Your task to perform on an android device: Go to sound settings Image 0: 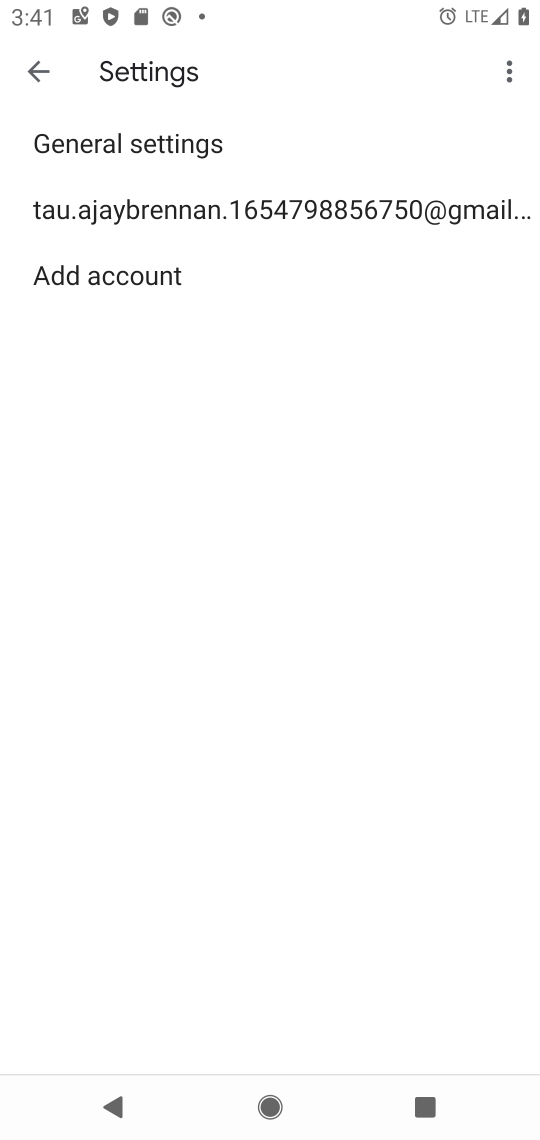
Step 0: press back button
Your task to perform on an android device: Go to sound settings Image 1: 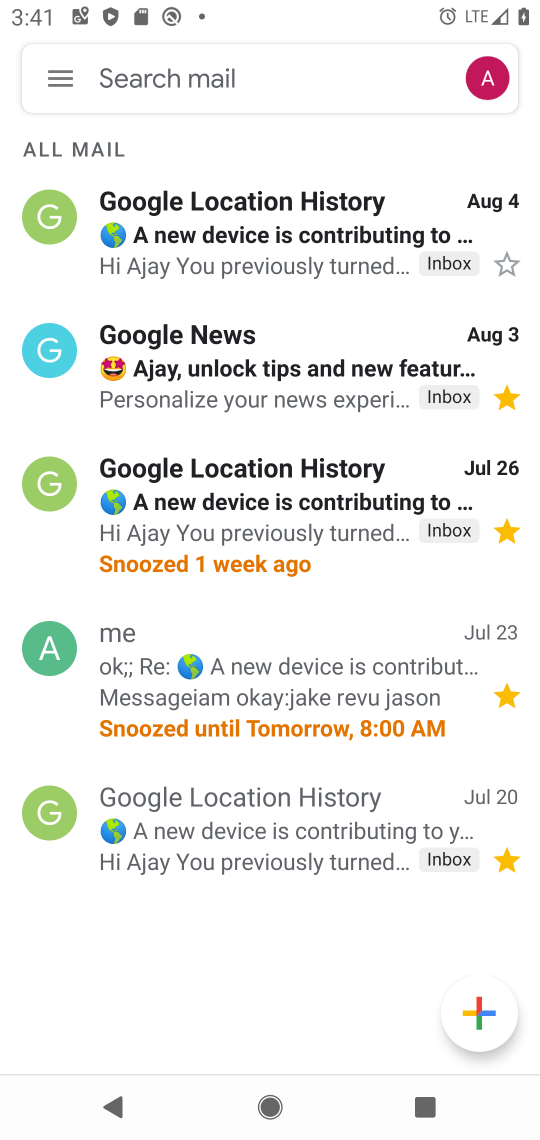
Step 1: press back button
Your task to perform on an android device: Go to sound settings Image 2: 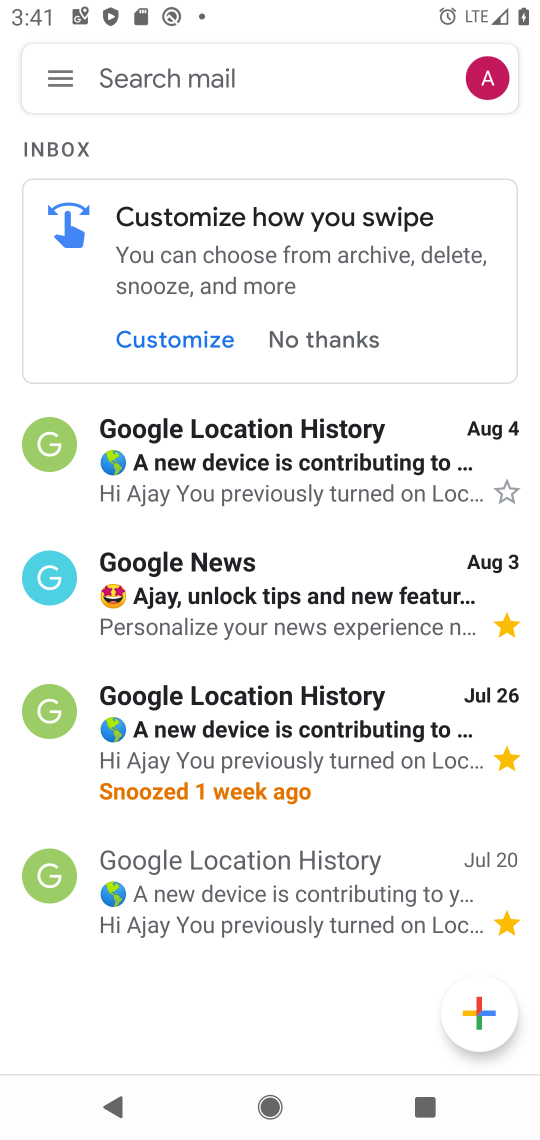
Step 2: press home button
Your task to perform on an android device: Go to sound settings Image 3: 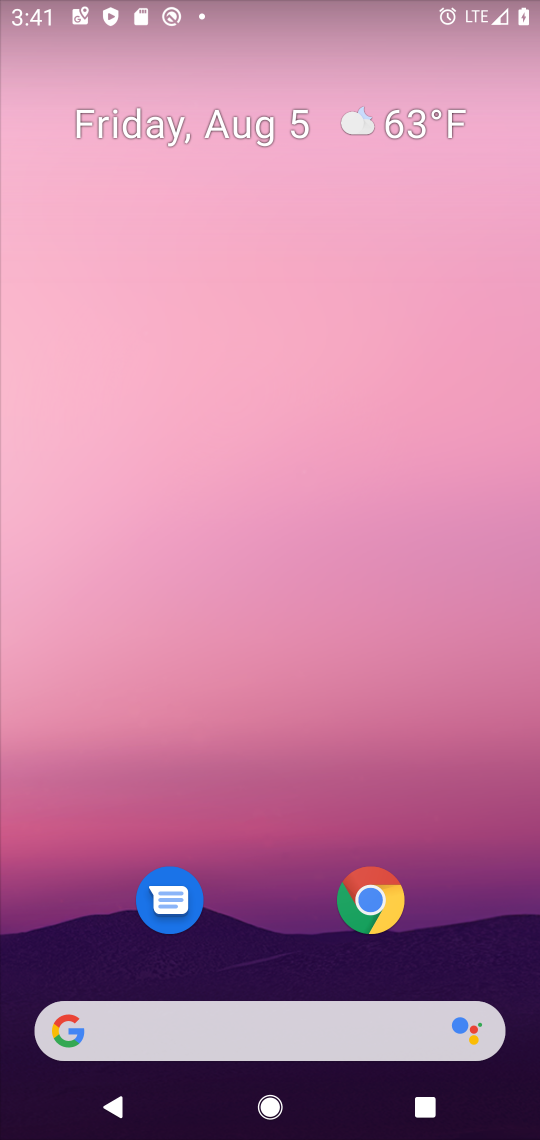
Step 3: drag from (227, 931) to (346, 27)
Your task to perform on an android device: Go to sound settings Image 4: 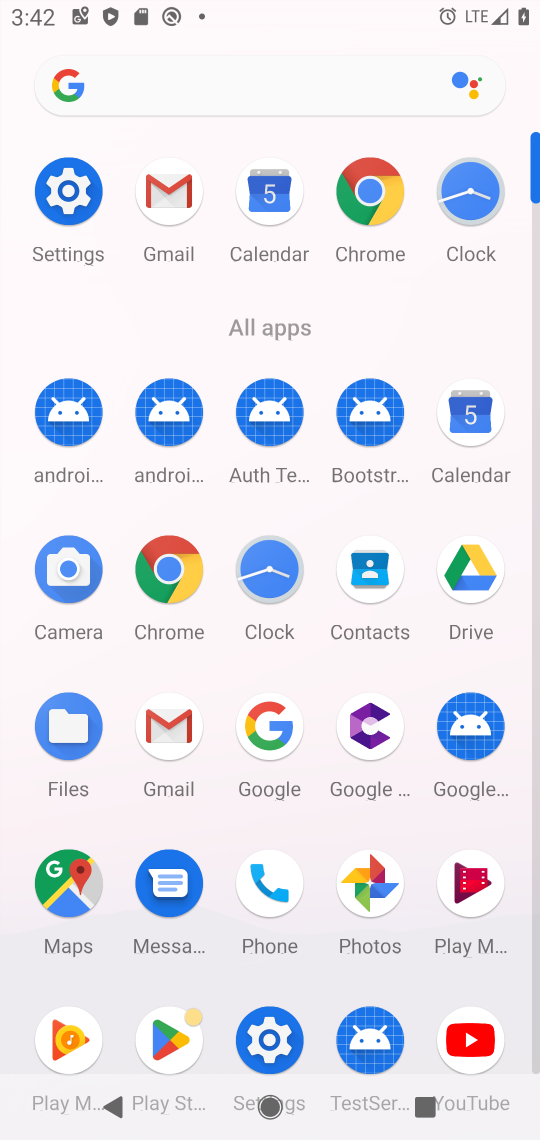
Step 4: click (80, 198)
Your task to perform on an android device: Go to sound settings Image 5: 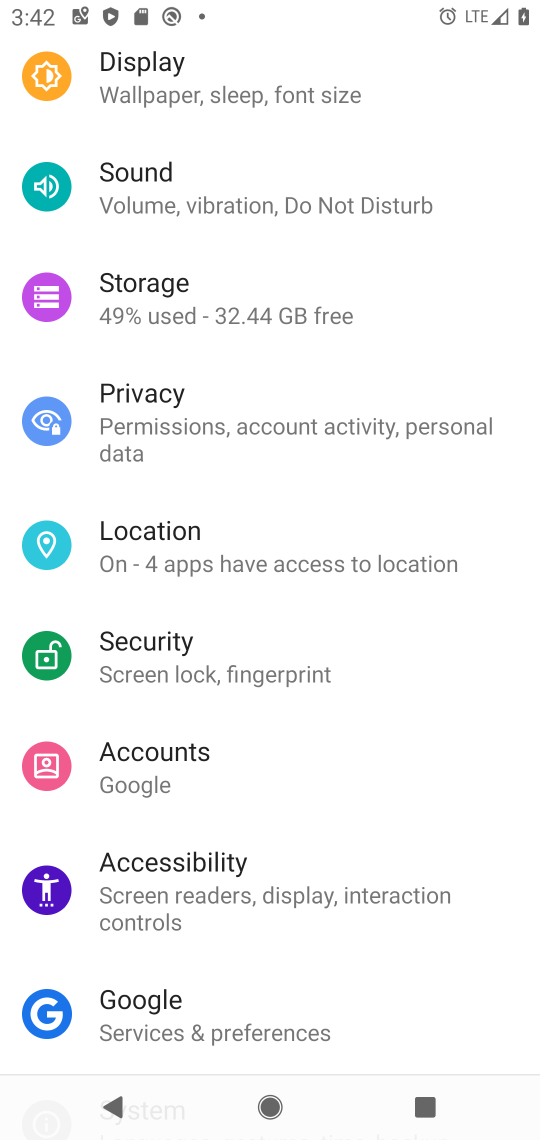
Step 5: click (191, 199)
Your task to perform on an android device: Go to sound settings Image 6: 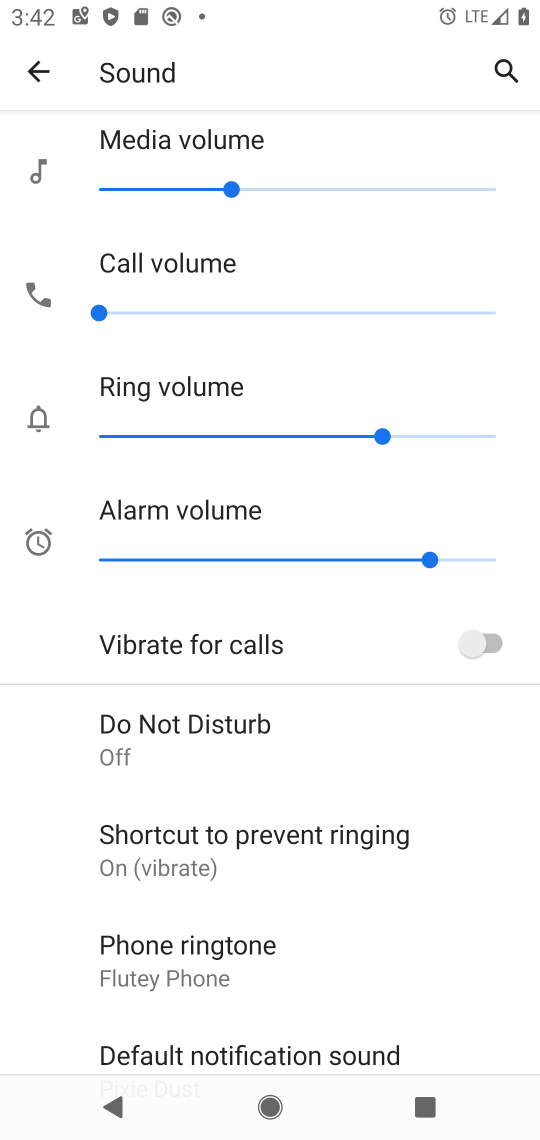
Step 6: task complete